Your task to perform on an android device: Search for Italian restaurants on Maps Image 0: 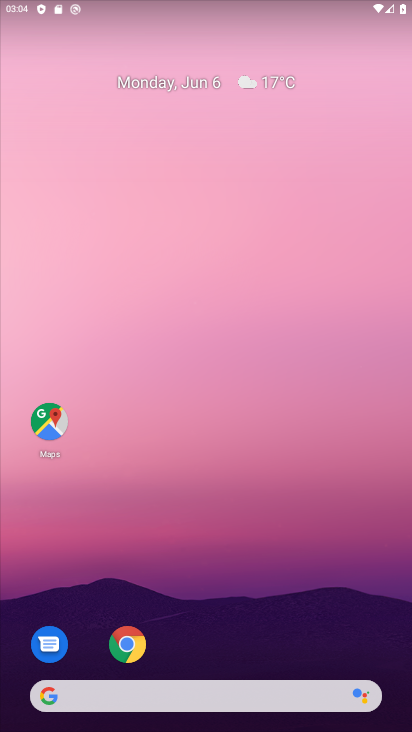
Step 0: click (39, 414)
Your task to perform on an android device: Search for Italian restaurants on Maps Image 1: 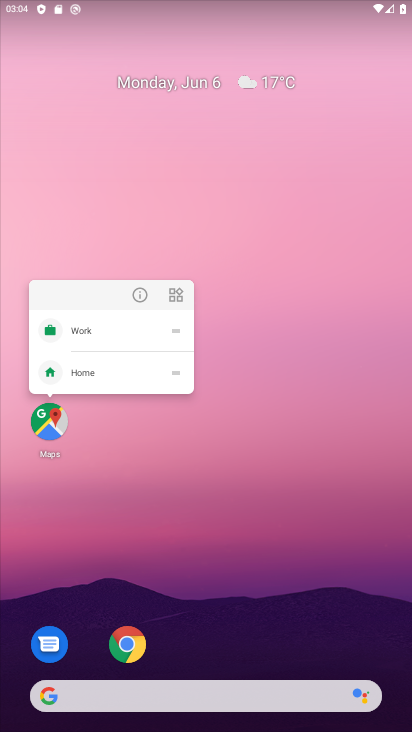
Step 1: click (39, 414)
Your task to perform on an android device: Search for Italian restaurants on Maps Image 2: 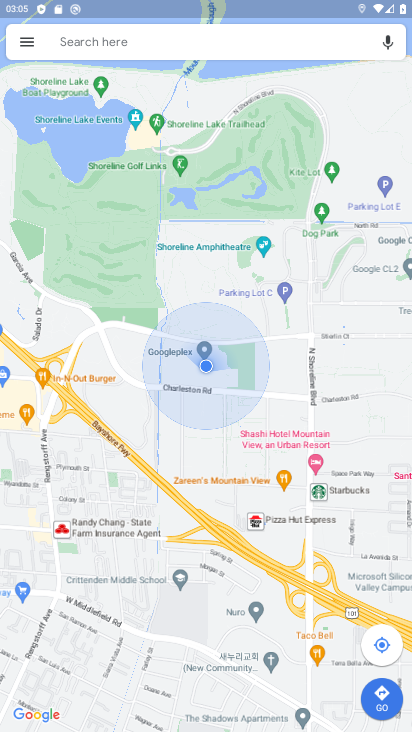
Step 2: click (104, 46)
Your task to perform on an android device: Search for Italian restaurants on Maps Image 3: 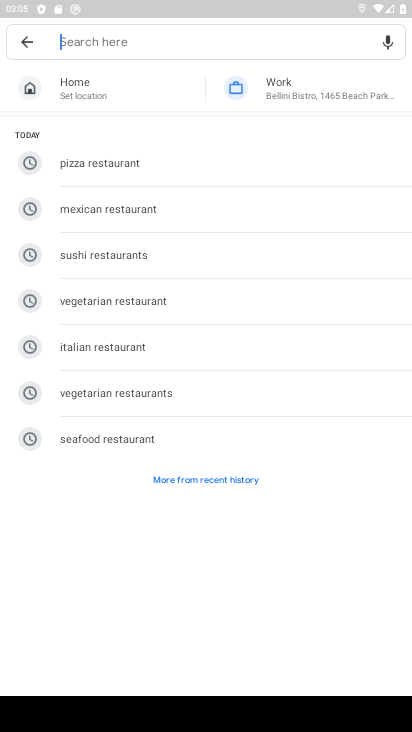
Step 3: type "Italian restaurants"
Your task to perform on an android device: Search for Italian restaurants on Maps Image 4: 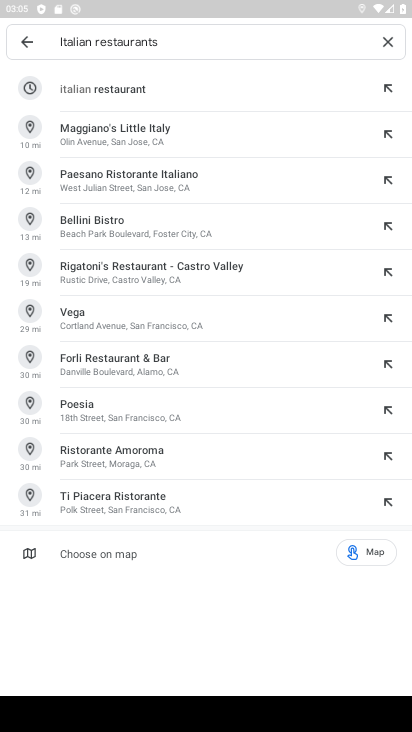
Step 4: click (132, 87)
Your task to perform on an android device: Search for Italian restaurants on Maps Image 5: 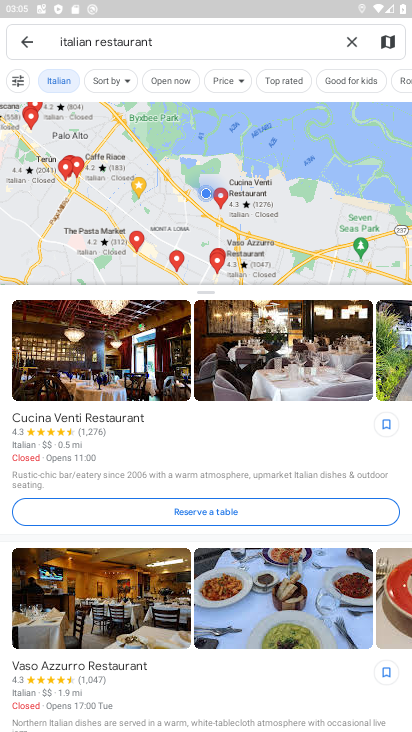
Step 5: task complete